Your task to perform on an android device: Play the last video I watched on Youtube Image 0: 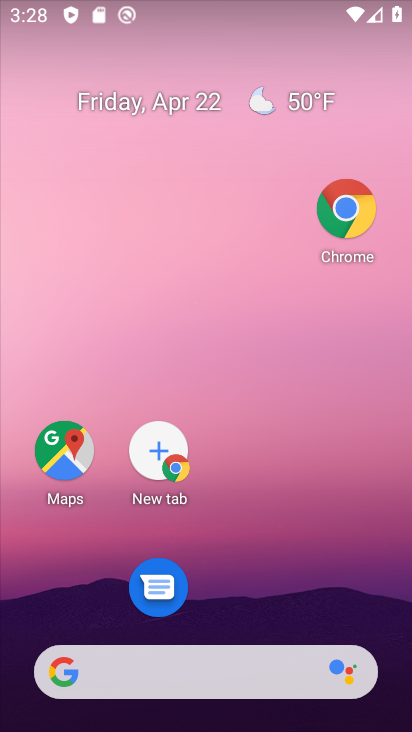
Step 0: drag from (256, 588) to (227, 12)
Your task to perform on an android device: Play the last video I watched on Youtube Image 1: 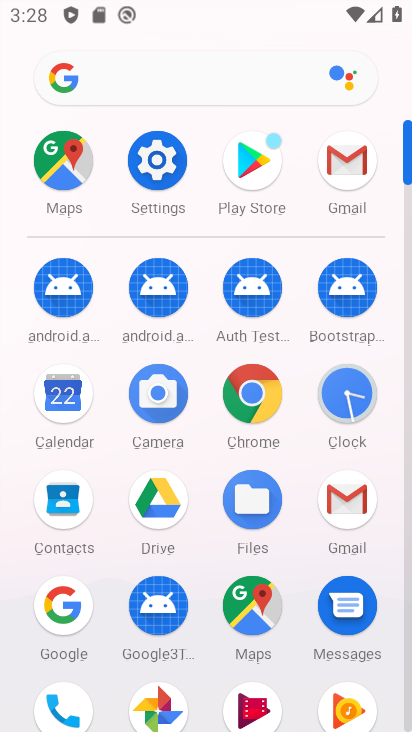
Step 1: drag from (212, 671) to (207, 184)
Your task to perform on an android device: Play the last video I watched on Youtube Image 2: 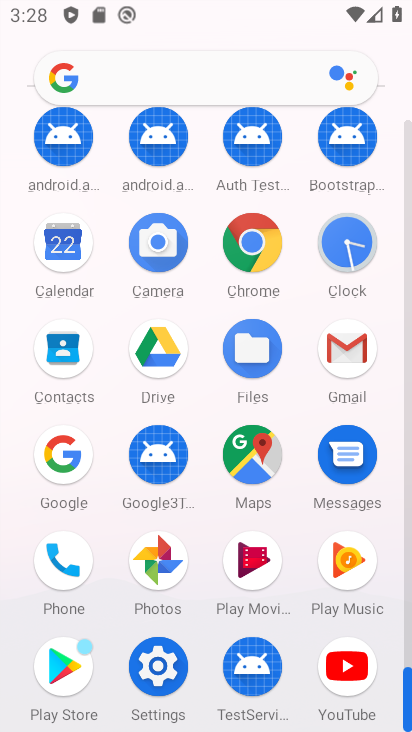
Step 2: click (345, 650)
Your task to perform on an android device: Play the last video I watched on Youtube Image 3: 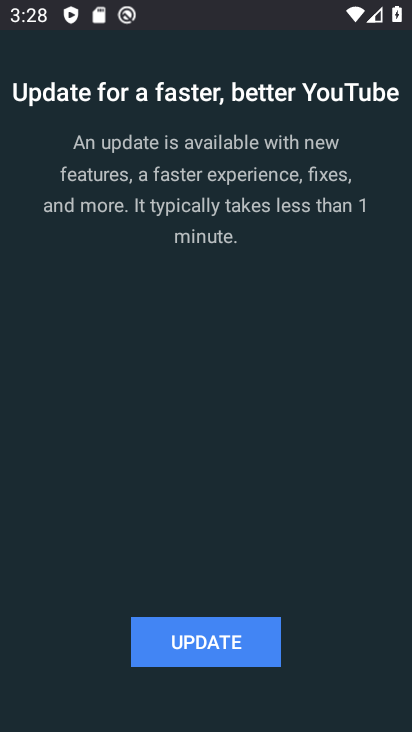
Step 3: click (221, 634)
Your task to perform on an android device: Play the last video I watched on Youtube Image 4: 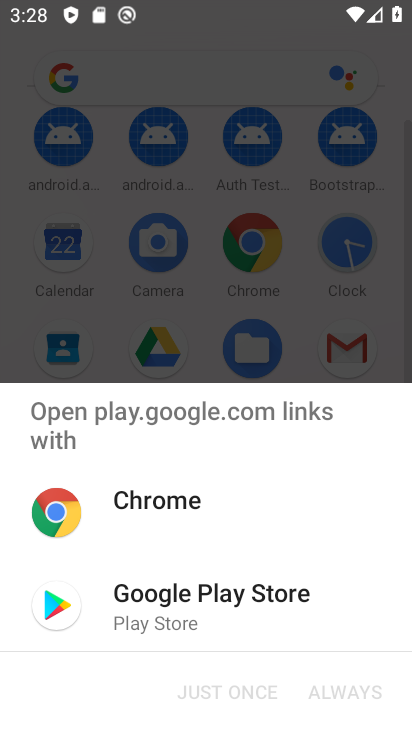
Step 4: click (221, 634)
Your task to perform on an android device: Play the last video I watched on Youtube Image 5: 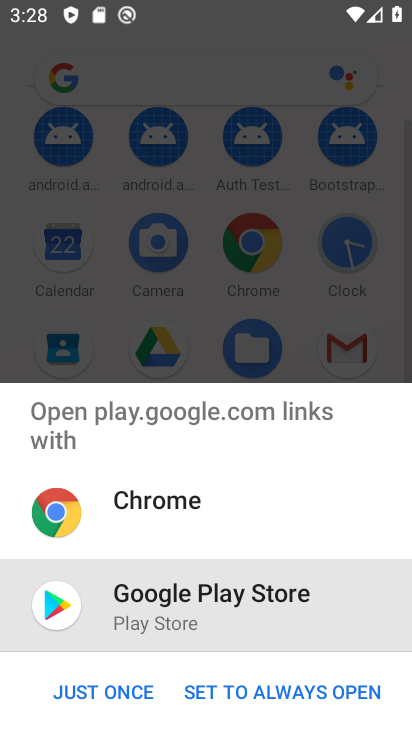
Step 5: click (134, 698)
Your task to perform on an android device: Play the last video I watched on Youtube Image 6: 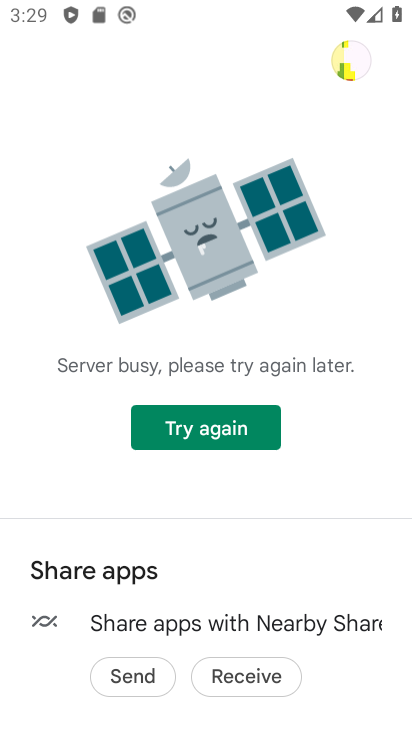
Step 6: task complete